Your task to perform on an android device: Open Google Chrome Image 0: 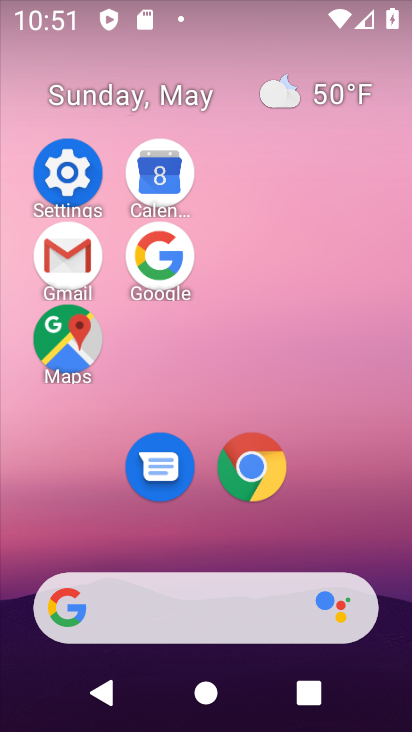
Step 0: click (259, 473)
Your task to perform on an android device: Open Google Chrome Image 1: 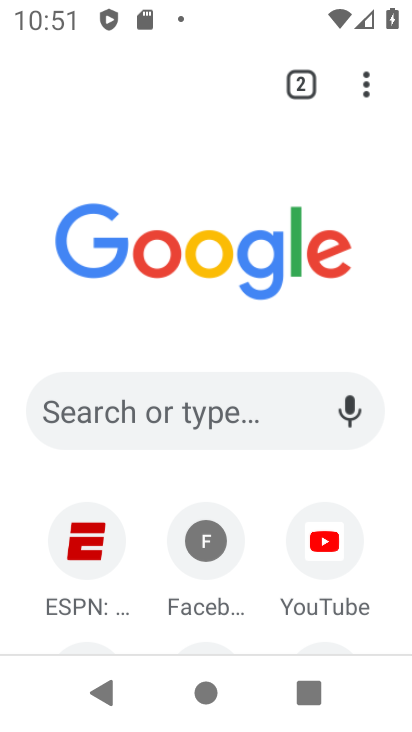
Step 1: task complete